Your task to perform on an android device: Open my contact list Image 0: 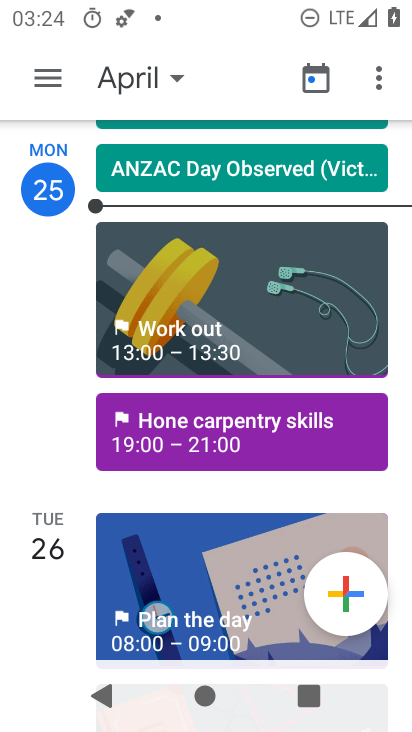
Step 0: press home button
Your task to perform on an android device: Open my contact list Image 1: 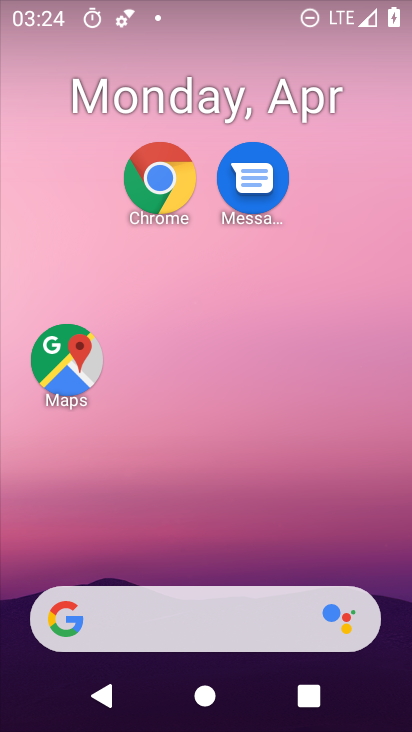
Step 1: drag from (222, 537) to (115, 51)
Your task to perform on an android device: Open my contact list Image 2: 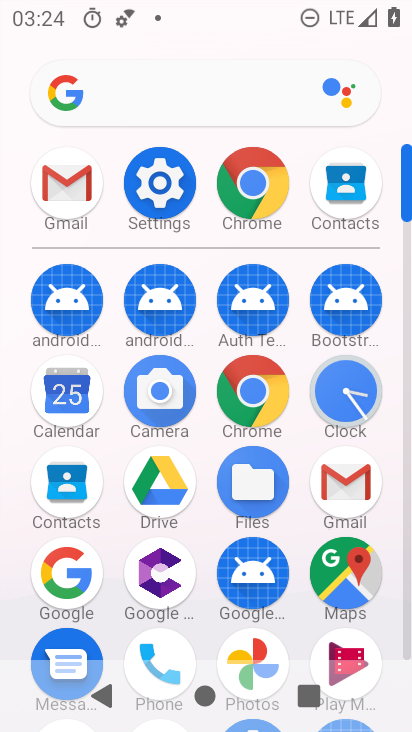
Step 2: click (82, 503)
Your task to perform on an android device: Open my contact list Image 3: 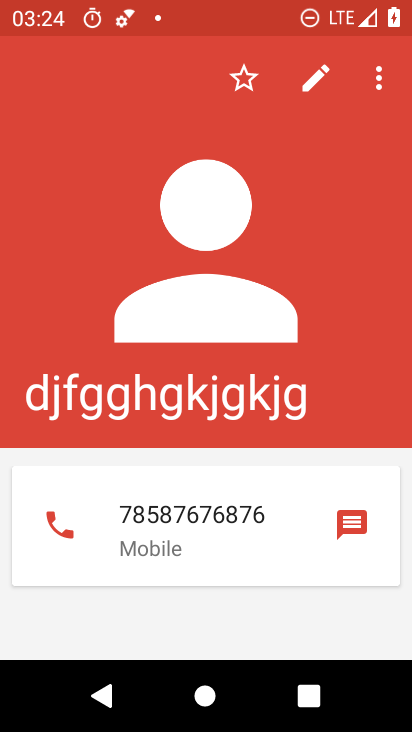
Step 3: task complete